Your task to perform on an android device: allow cookies in the chrome app Image 0: 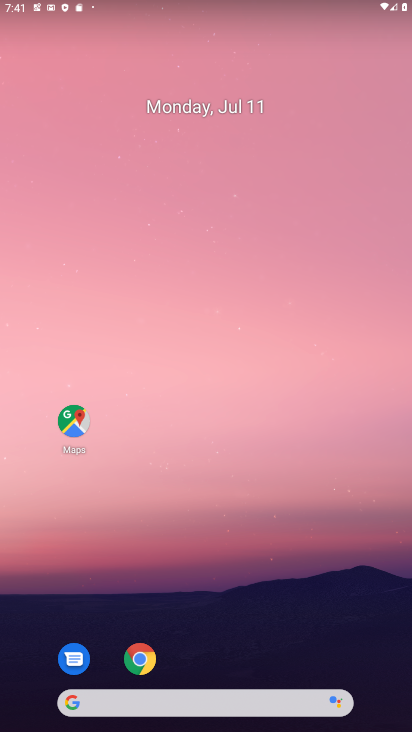
Step 0: drag from (256, 683) to (183, 122)
Your task to perform on an android device: allow cookies in the chrome app Image 1: 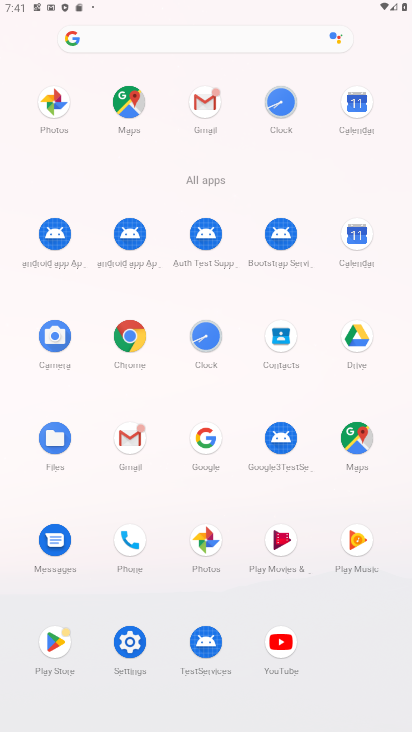
Step 1: click (128, 335)
Your task to perform on an android device: allow cookies in the chrome app Image 2: 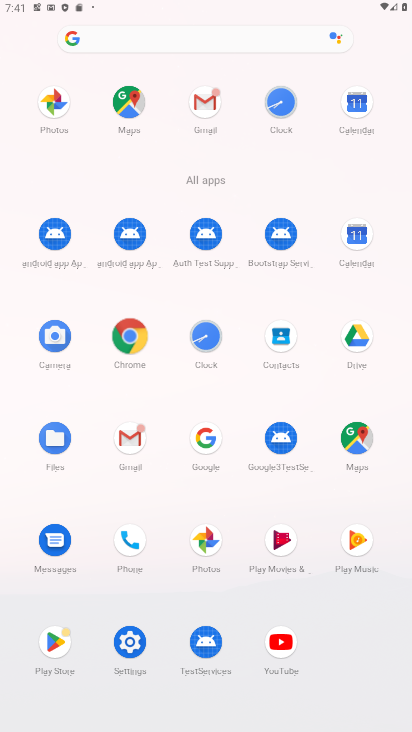
Step 2: click (130, 335)
Your task to perform on an android device: allow cookies in the chrome app Image 3: 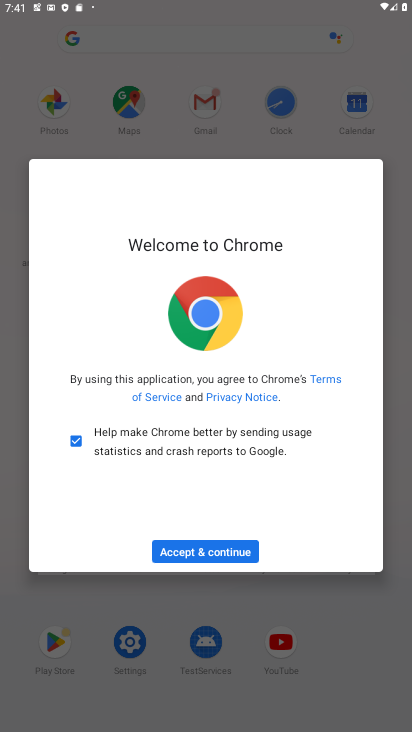
Step 3: click (217, 550)
Your task to perform on an android device: allow cookies in the chrome app Image 4: 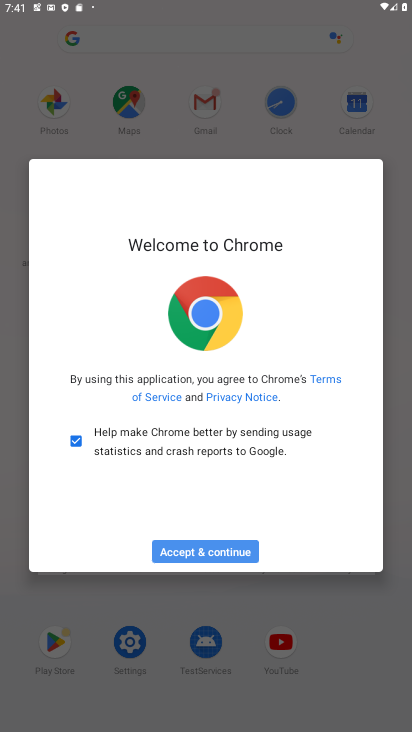
Step 4: click (217, 550)
Your task to perform on an android device: allow cookies in the chrome app Image 5: 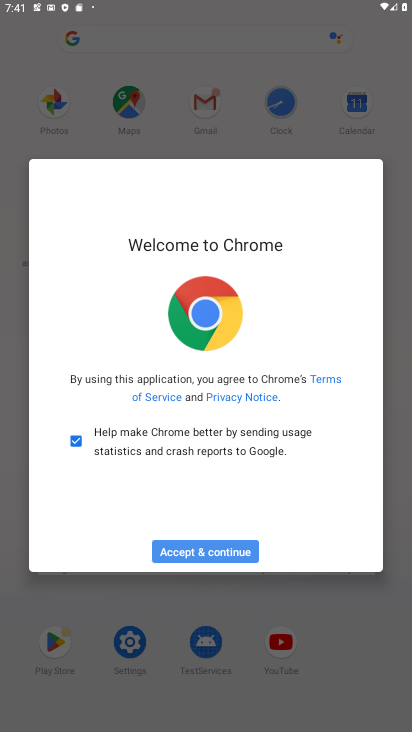
Step 5: click (217, 550)
Your task to perform on an android device: allow cookies in the chrome app Image 6: 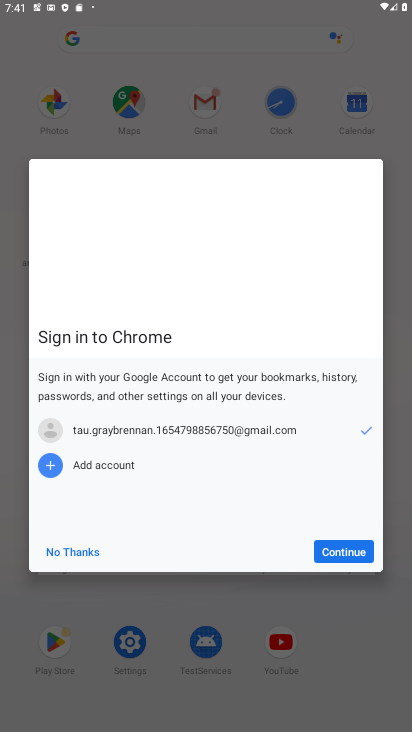
Step 6: click (358, 547)
Your task to perform on an android device: allow cookies in the chrome app Image 7: 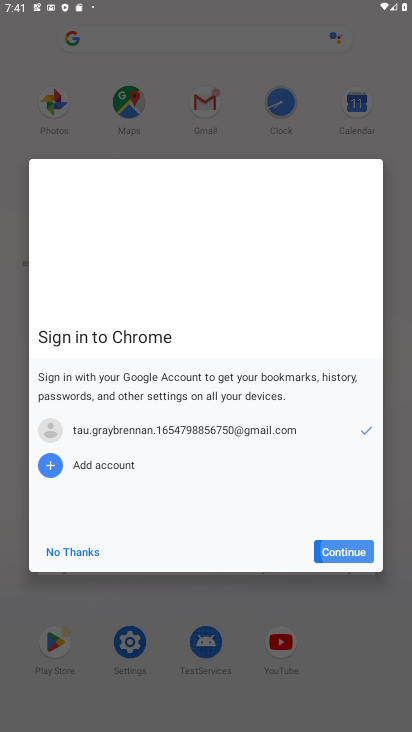
Step 7: click (358, 547)
Your task to perform on an android device: allow cookies in the chrome app Image 8: 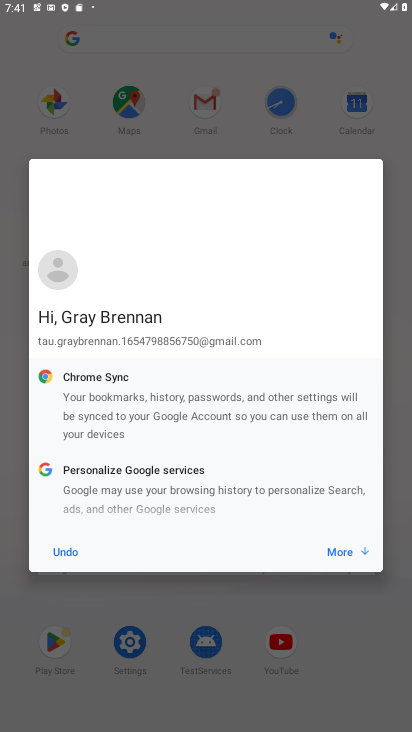
Step 8: click (357, 558)
Your task to perform on an android device: allow cookies in the chrome app Image 9: 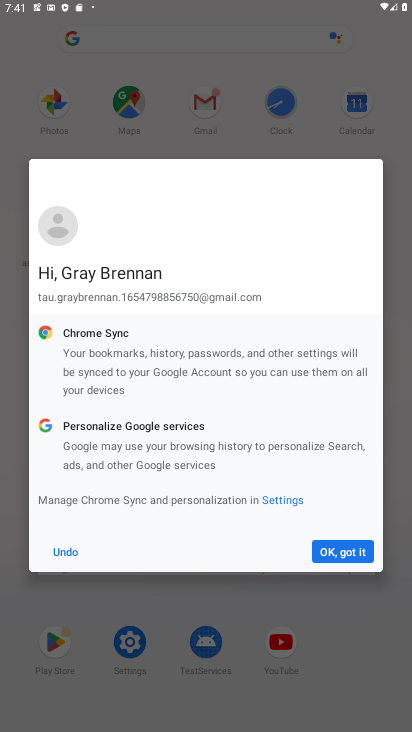
Step 9: click (337, 549)
Your task to perform on an android device: allow cookies in the chrome app Image 10: 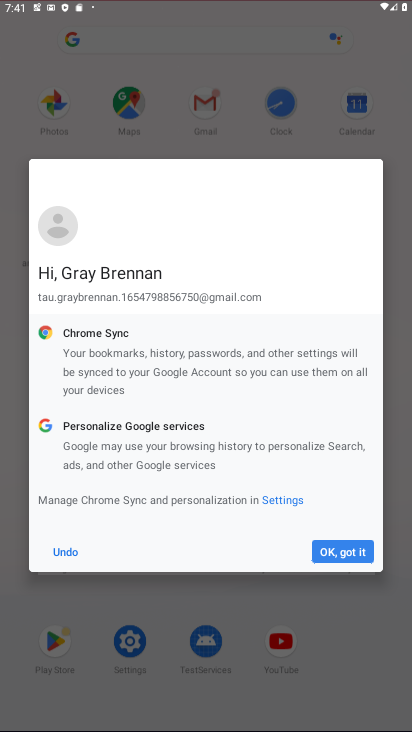
Step 10: click (345, 552)
Your task to perform on an android device: allow cookies in the chrome app Image 11: 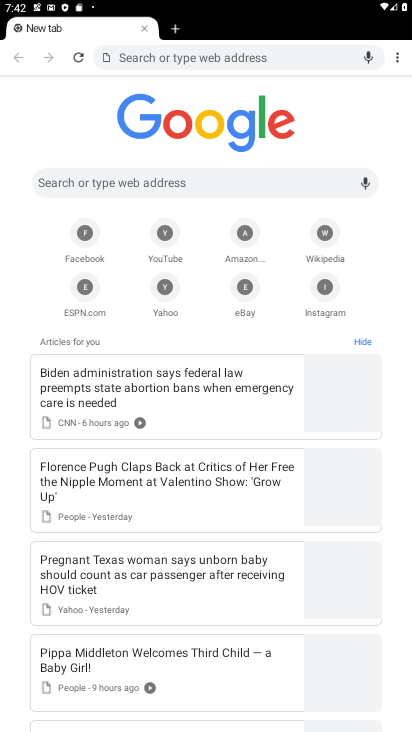
Step 11: drag from (395, 57) to (277, 256)
Your task to perform on an android device: allow cookies in the chrome app Image 12: 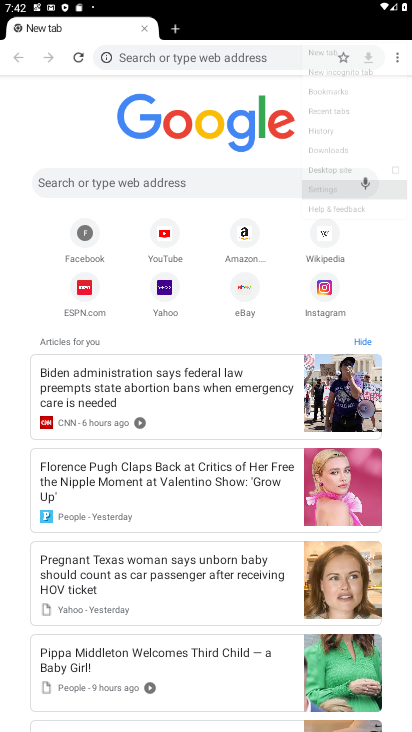
Step 12: click (277, 257)
Your task to perform on an android device: allow cookies in the chrome app Image 13: 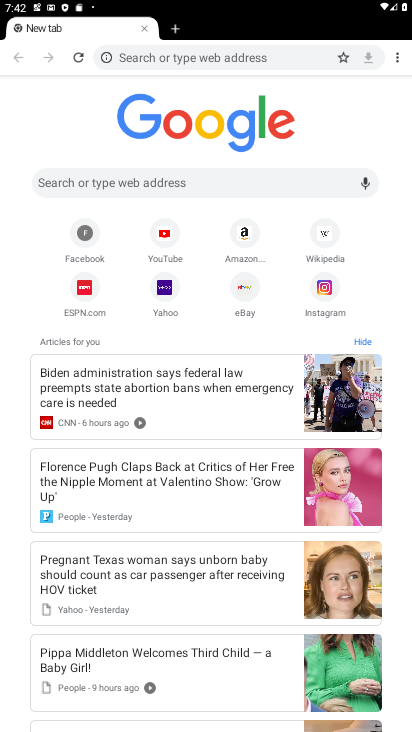
Step 13: click (278, 258)
Your task to perform on an android device: allow cookies in the chrome app Image 14: 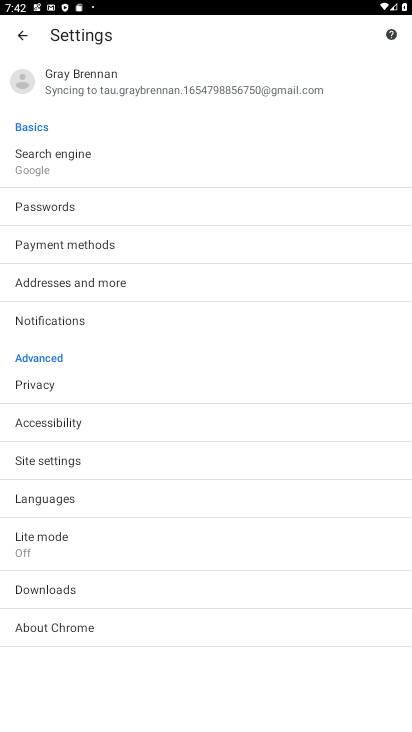
Step 14: click (53, 458)
Your task to perform on an android device: allow cookies in the chrome app Image 15: 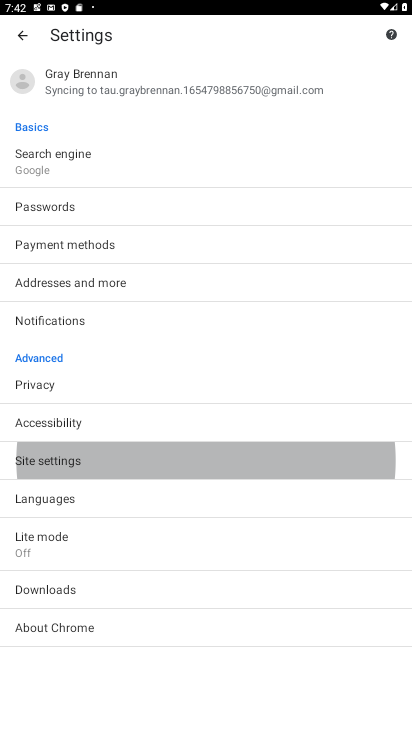
Step 15: click (53, 459)
Your task to perform on an android device: allow cookies in the chrome app Image 16: 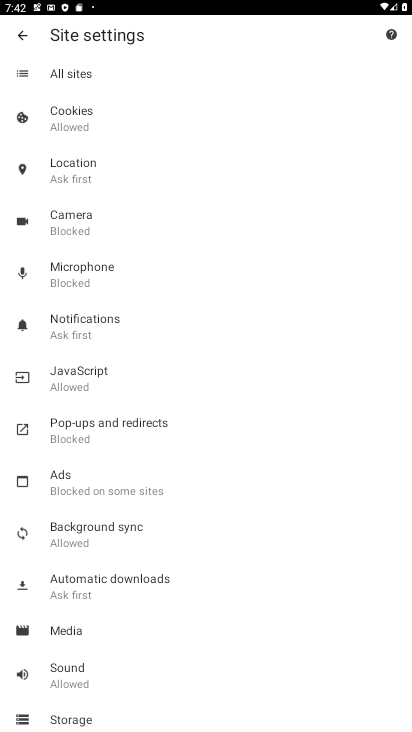
Step 16: click (60, 123)
Your task to perform on an android device: allow cookies in the chrome app Image 17: 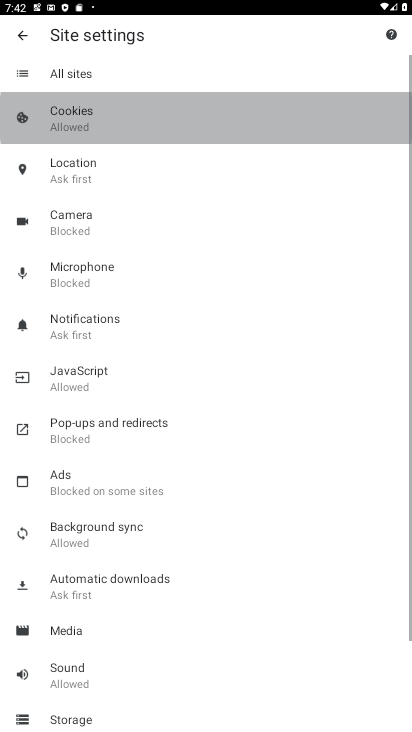
Step 17: click (60, 123)
Your task to perform on an android device: allow cookies in the chrome app Image 18: 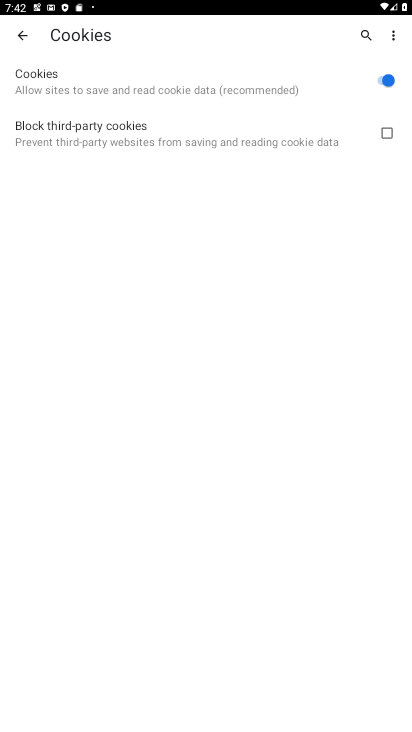
Step 18: task complete